Your task to perform on an android device: Open the web browser Image 0: 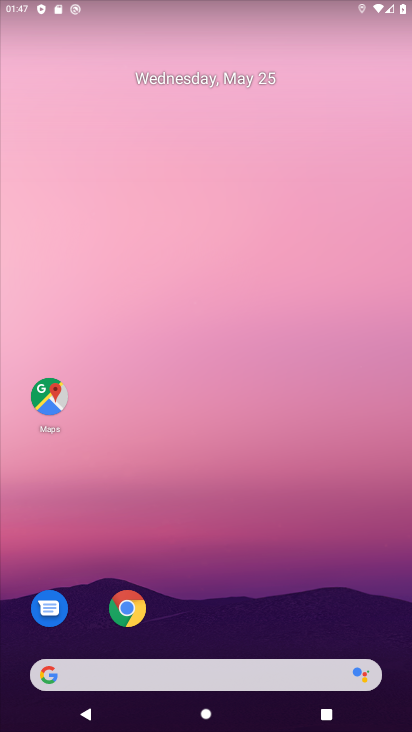
Step 0: click (118, 598)
Your task to perform on an android device: Open the web browser Image 1: 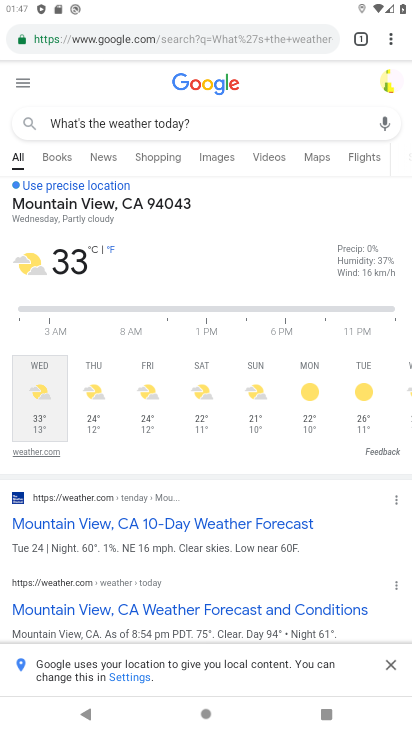
Step 1: task complete